Your task to perform on an android device: Open settings Image 0: 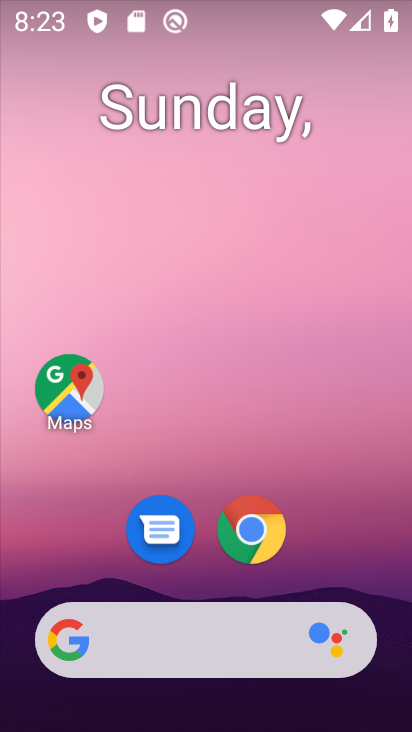
Step 0: drag from (388, 579) to (283, 122)
Your task to perform on an android device: Open settings Image 1: 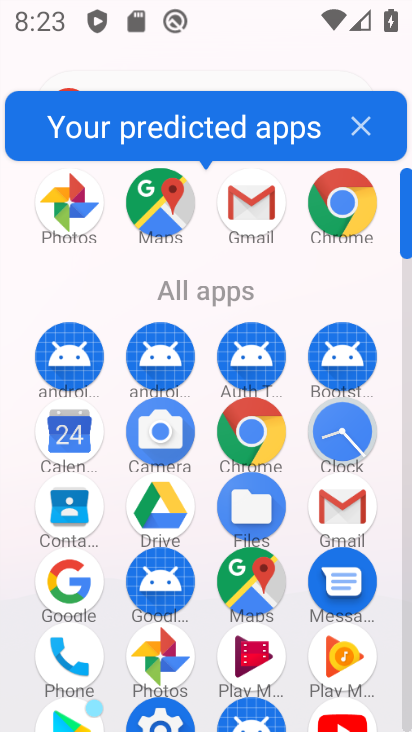
Step 1: click (405, 710)
Your task to perform on an android device: Open settings Image 2: 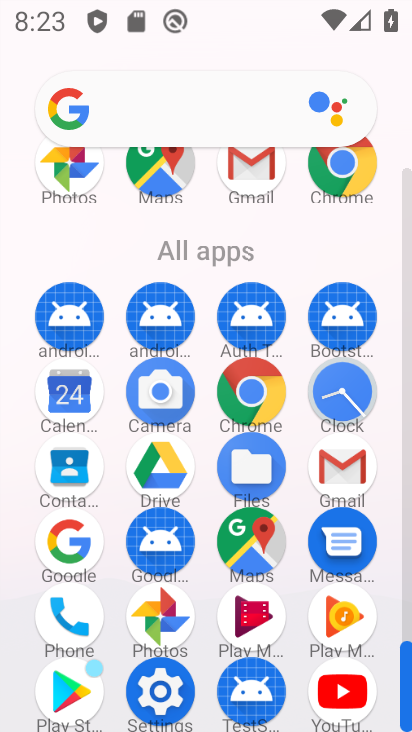
Step 2: click (171, 692)
Your task to perform on an android device: Open settings Image 3: 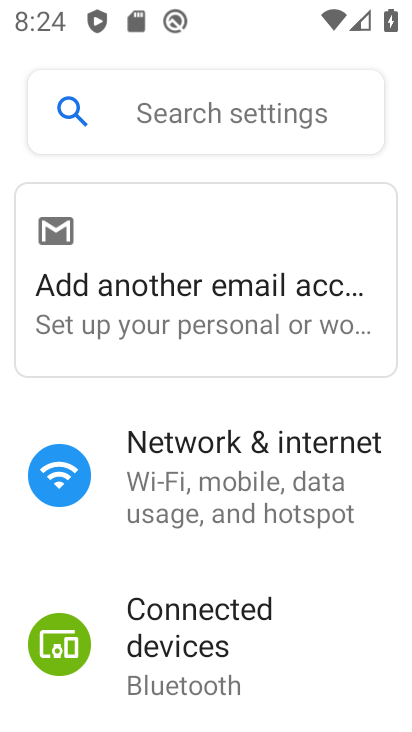
Step 3: task complete